Your task to perform on an android device: Open settings on Google Maps Image 0: 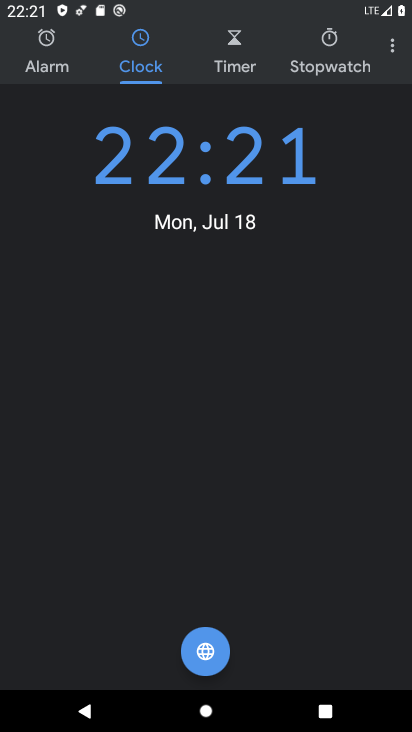
Step 0: press home button
Your task to perform on an android device: Open settings on Google Maps Image 1: 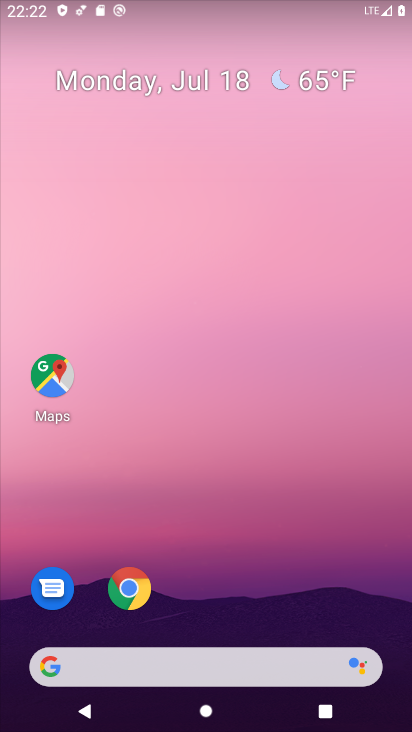
Step 1: click (56, 375)
Your task to perform on an android device: Open settings on Google Maps Image 2: 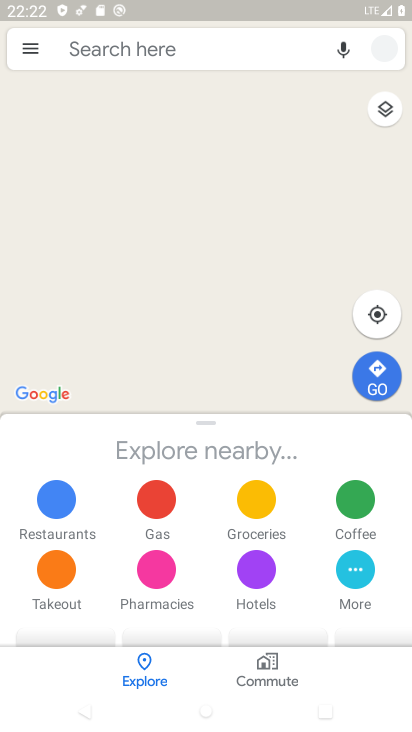
Step 2: click (35, 48)
Your task to perform on an android device: Open settings on Google Maps Image 3: 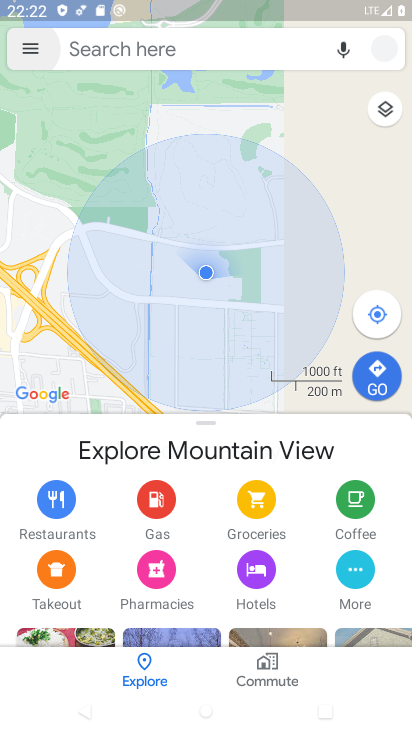
Step 3: click (33, 53)
Your task to perform on an android device: Open settings on Google Maps Image 4: 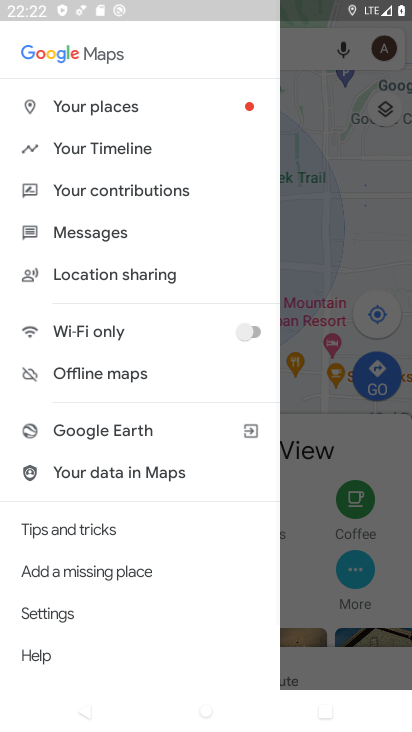
Step 4: click (41, 604)
Your task to perform on an android device: Open settings on Google Maps Image 5: 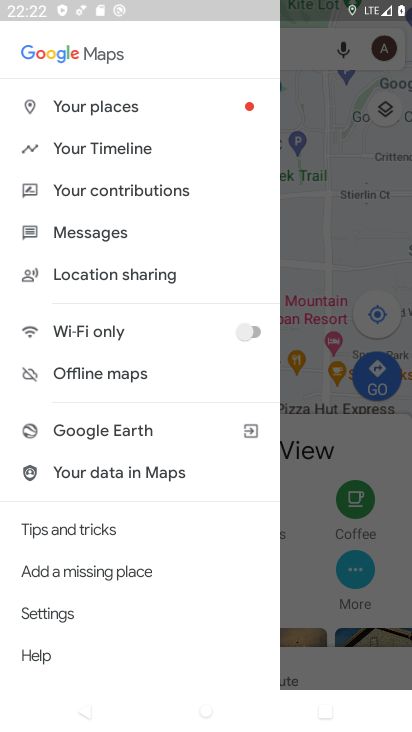
Step 5: click (38, 613)
Your task to perform on an android device: Open settings on Google Maps Image 6: 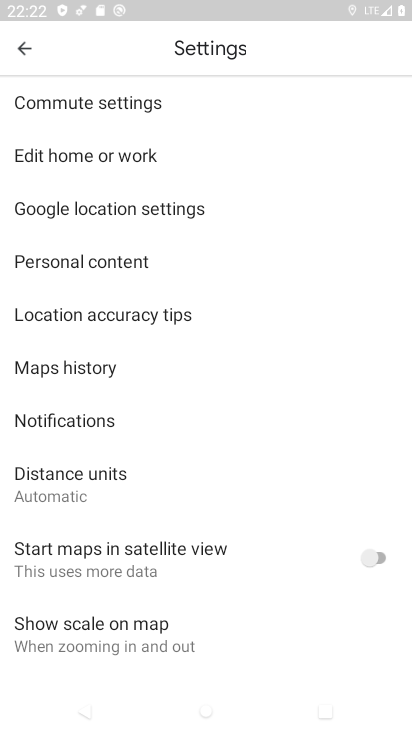
Step 6: task complete